Your task to perform on an android device: toggle data saver in the chrome app Image 0: 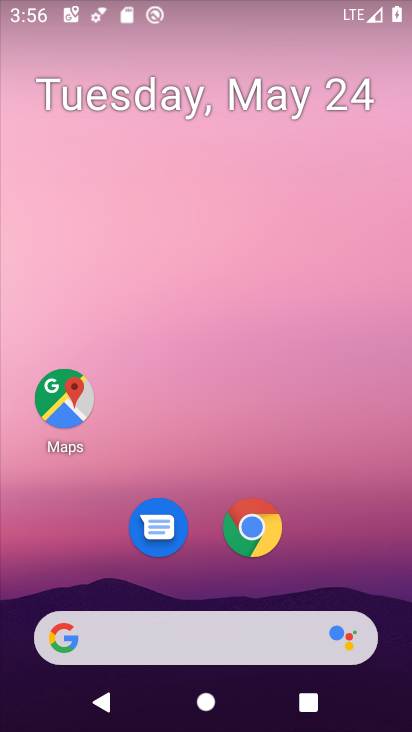
Step 0: click (262, 528)
Your task to perform on an android device: toggle data saver in the chrome app Image 1: 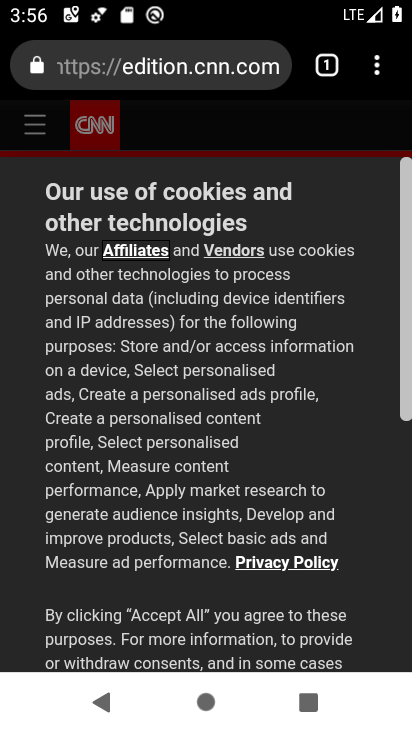
Step 1: click (380, 68)
Your task to perform on an android device: toggle data saver in the chrome app Image 2: 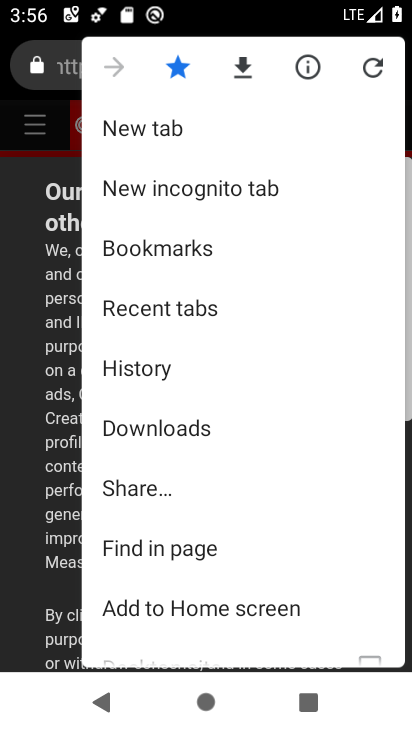
Step 2: drag from (305, 554) to (302, 181)
Your task to perform on an android device: toggle data saver in the chrome app Image 3: 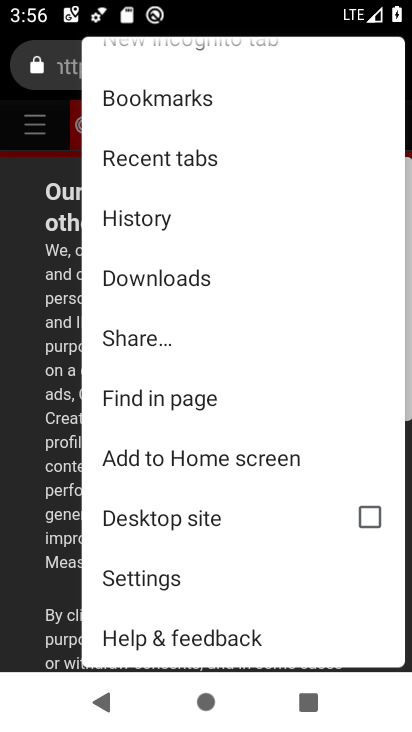
Step 3: click (133, 583)
Your task to perform on an android device: toggle data saver in the chrome app Image 4: 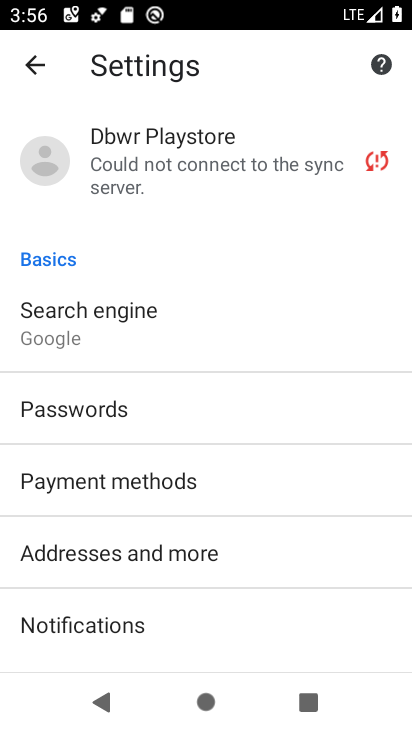
Step 4: drag from (229, 432) to (212, 97)
Your task to perform on an android device: toggle data saver in the chrome app Image 5: 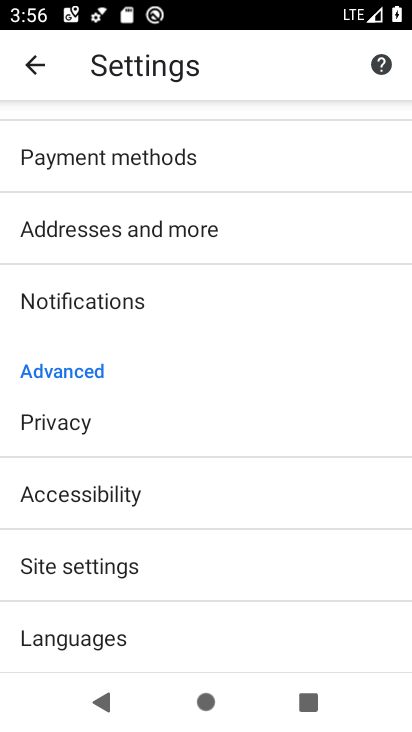
Step 5: drag from (172, 544) to (164, 151)
Your task to perform on an android device: toggle data saver in the chrome app Image 6: 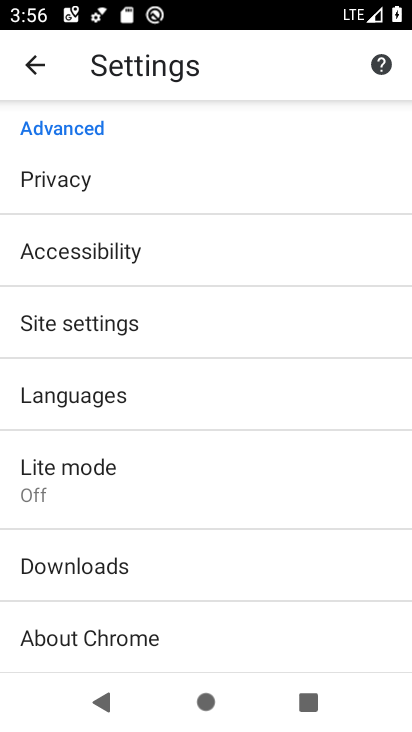
Step 6: click (57, 473)
Your task to perform on an android device: toggle data saver in the chrome app Image 7: 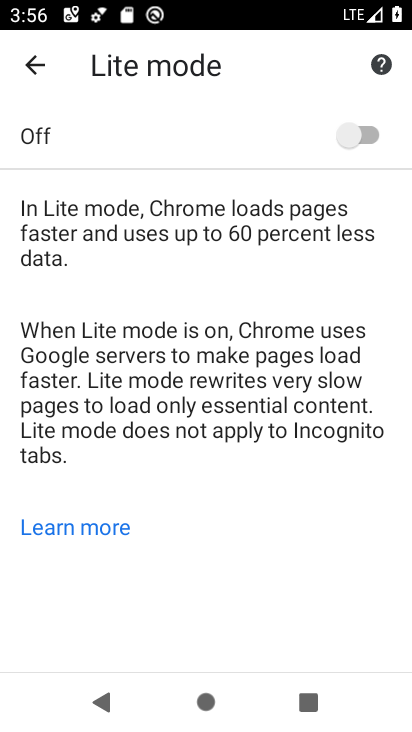
Step 7: click (343, 146)
Your task to perform on an android device: toggle data saver in the chrome app Image 8: 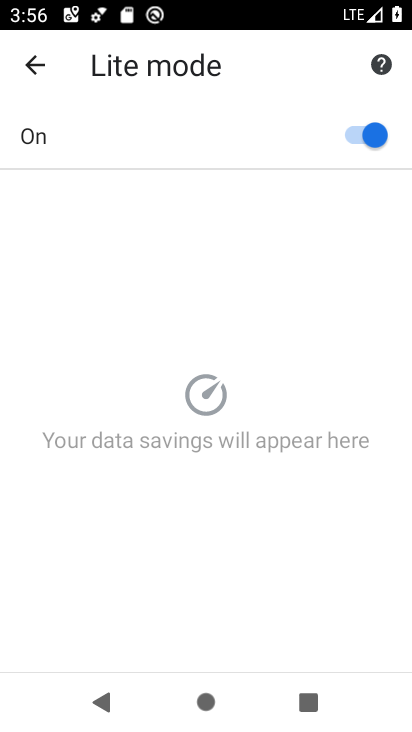
Step 8: task complete